Your task to perform on an android device: delete browsing data in the chrome app Image 0: 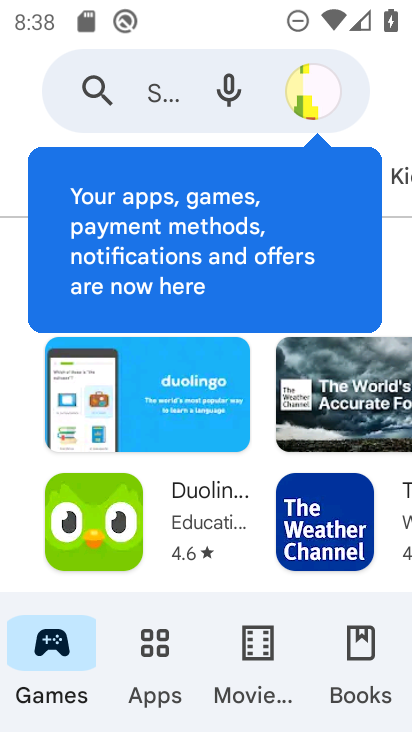
Step 0: press back button
Your task to perform on an android device: delete browsing data in the chrome app Image 1: 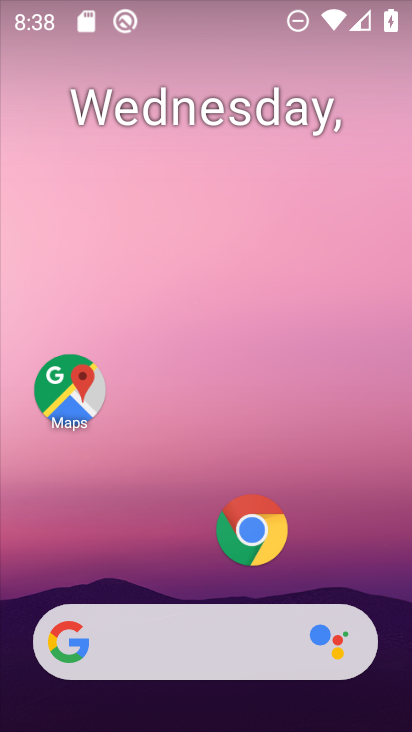
Step 1: click (250, 517)
Your task to perform on an android device: delete browsing data in the chrome app Image 2: 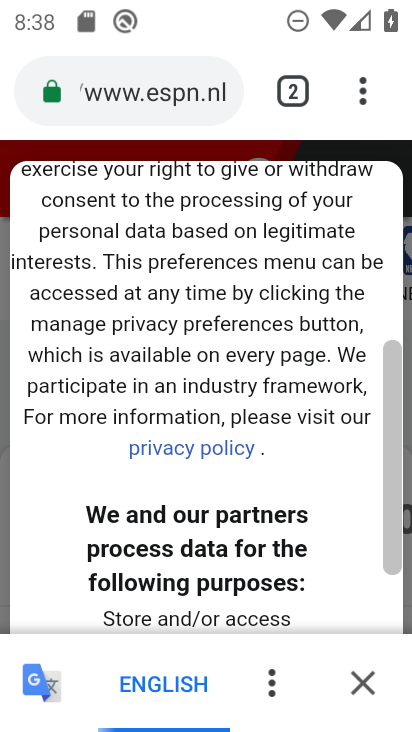
Step 2: drag from (358, 98) to (77, 506)
Your task to perform on an android device: delete browsing data in the chrome app Image 3: 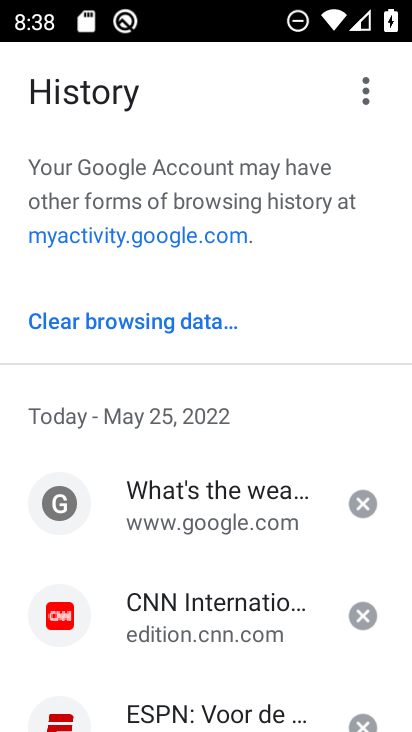
Step 3: click (69, 329)
Your task to perform on an android device: delete browsing data in the chrome app Image 4: 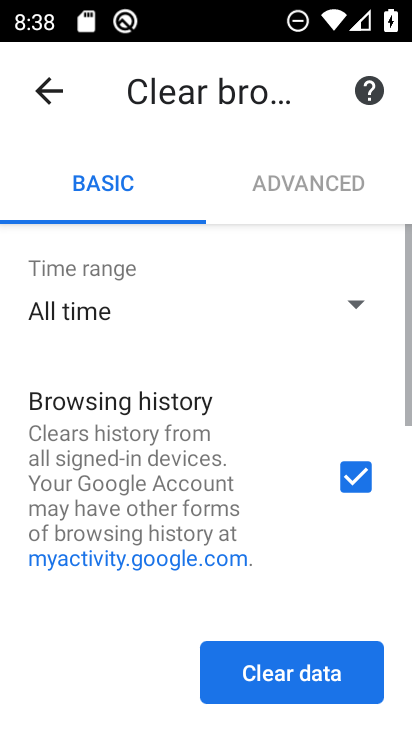
Step 4: drag from (249, 627) to (333, 161)
Your task to perform on an android device: delete browsing data in the chrome app Image 5: 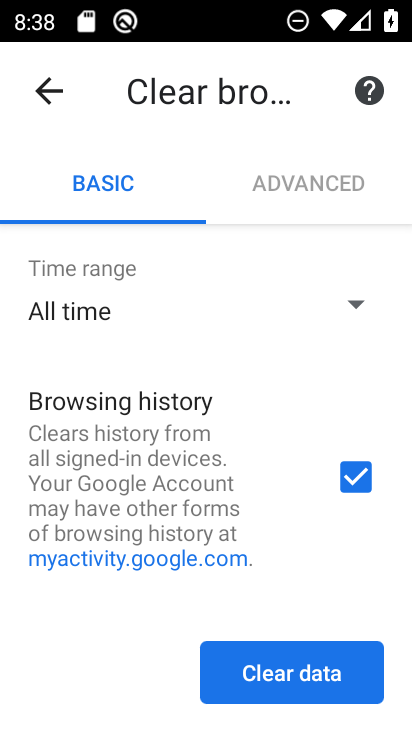
Step 5: drag from (155, 534) to (202, 189)
Your task to perform on an android device: delete browsing data in the chrome app Image 6: 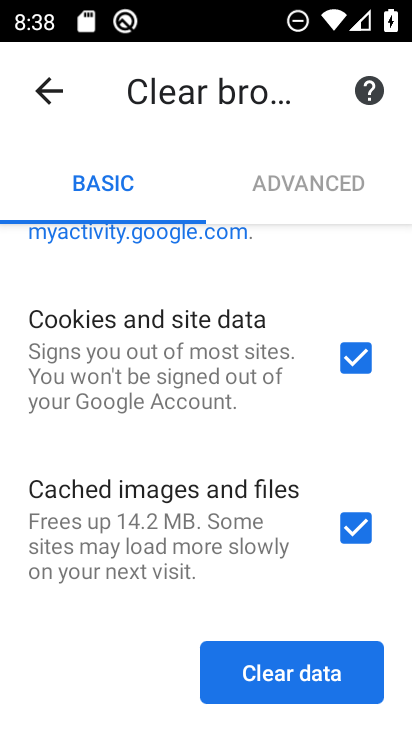
Step 6: click (281, 691)
Your task to perform on an android device: delete browsing data in the chrome app Image 7: 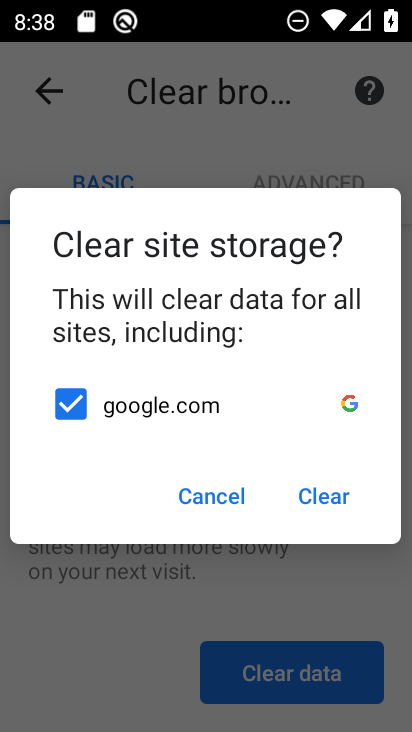
Step 7: click (324, 489)
Your task to perform on an android device: delete browsing data in the chrome app Image 8: 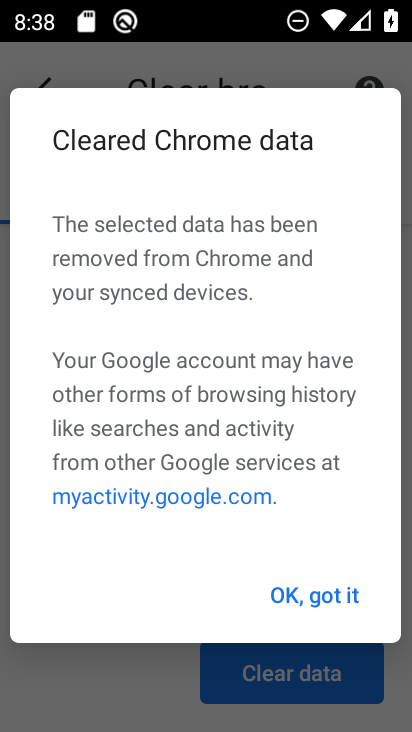
Step 8: click (293, 584)
Your task to perform on an android device: delete browsing data in the chrome app Image 9: 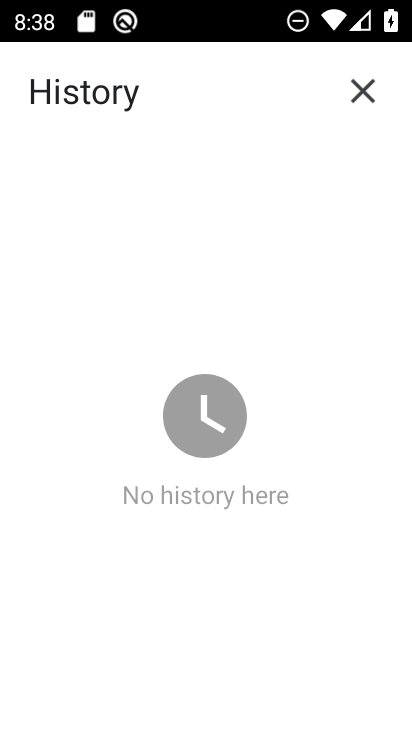
Step 9: task complete